Your task to perform on an android device: toggle location history Image 0: 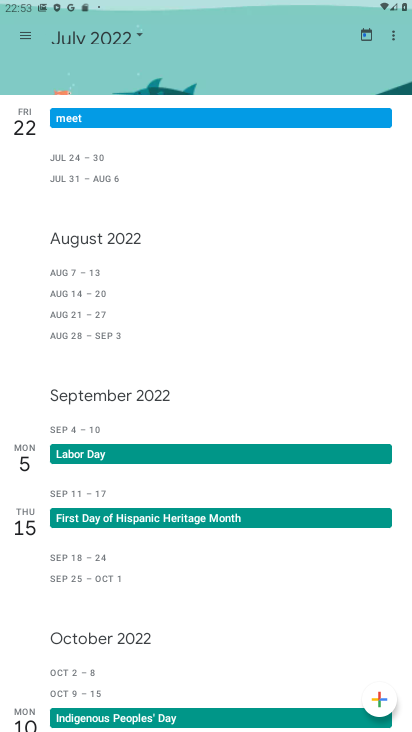
Step 0: press home button
Your task to perform on an android device: toggle location history Image 1: 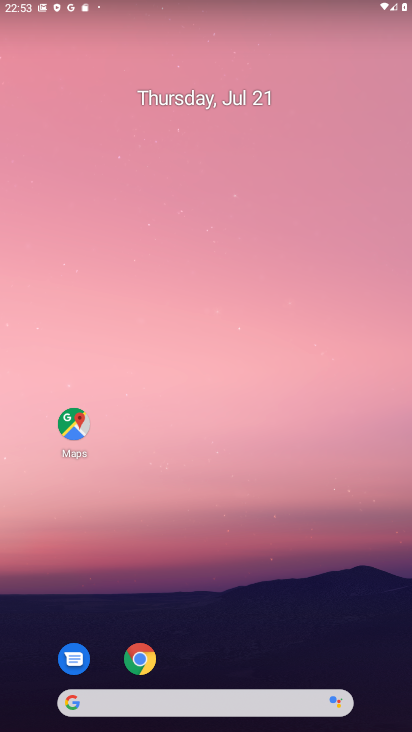
Step 1: drag from (197, 702) to (249, 258)
Your task to perform on an android device: toggle location history Image 2: 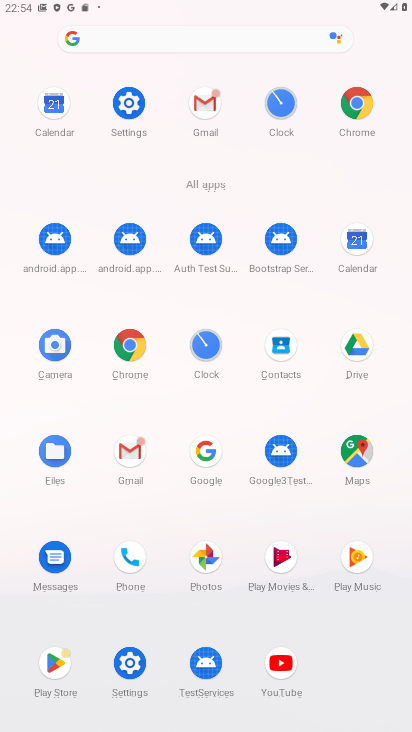
Step 2: click (130, 103)
Your task to perform on an android device: toggle location history Image 3: 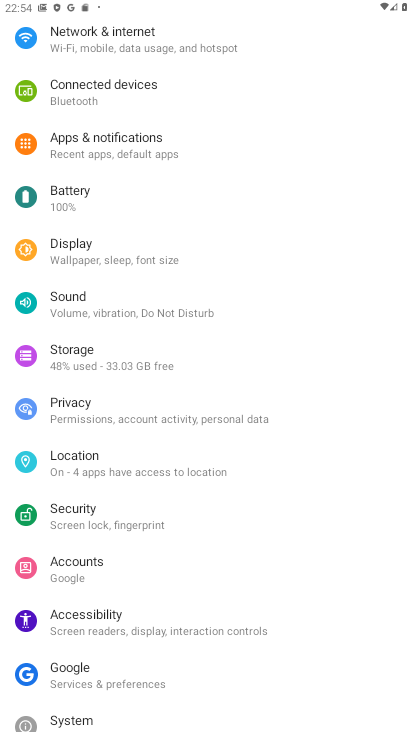
Step 3: click (86, 463)
Your task to perform on an android device: toggle location history Image 4: 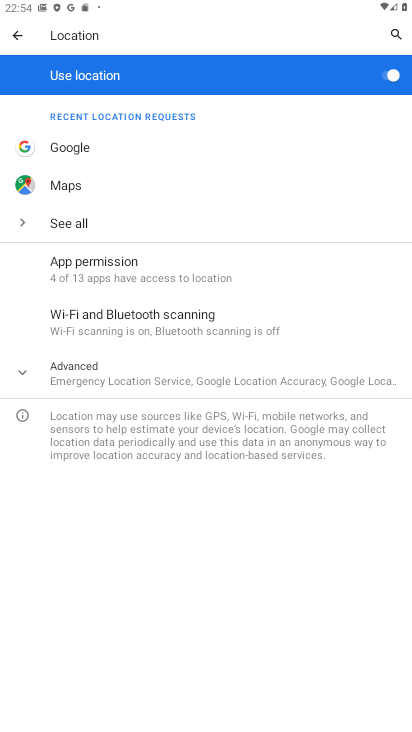
Step 4: click (129, 378)
Your task to perform on an android device: toggle location history Image 5: 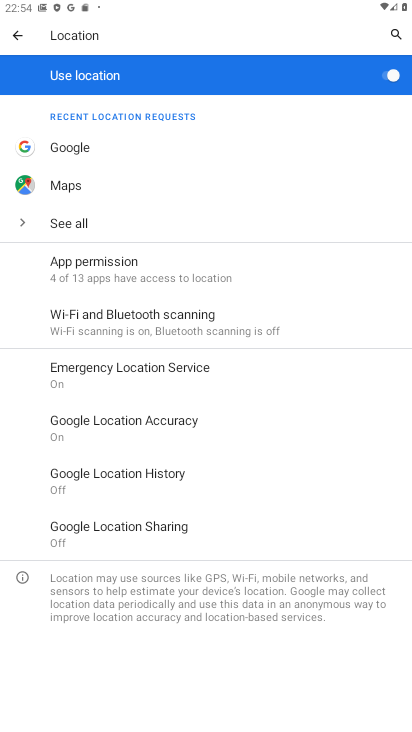
Step 5: click (102, 475)
Your task to perform on an android device: toggle location history Image 6: 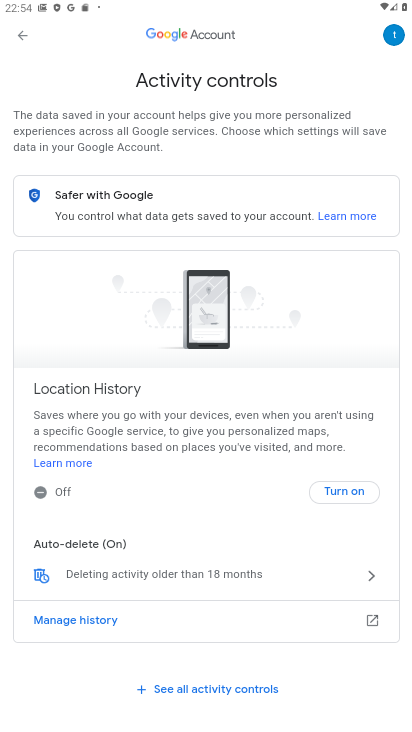
Step 6: click (340, 489)
Your task to perform on an android device: toggle location history Image 7: 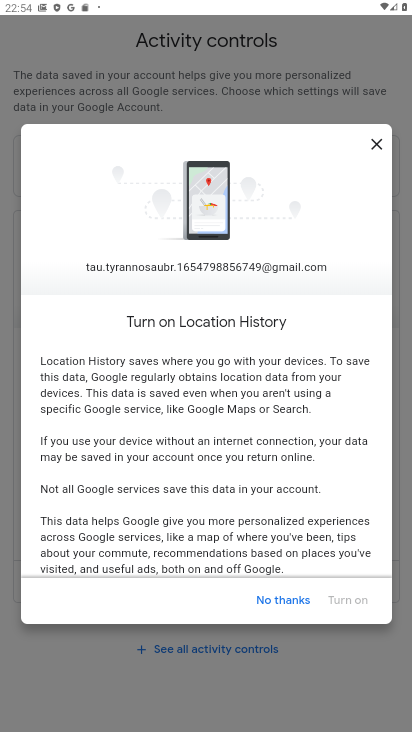
Step 7: drag from (310, 510) to (376, 351)
Your task to perform on an android device: toggle location history Image 8: 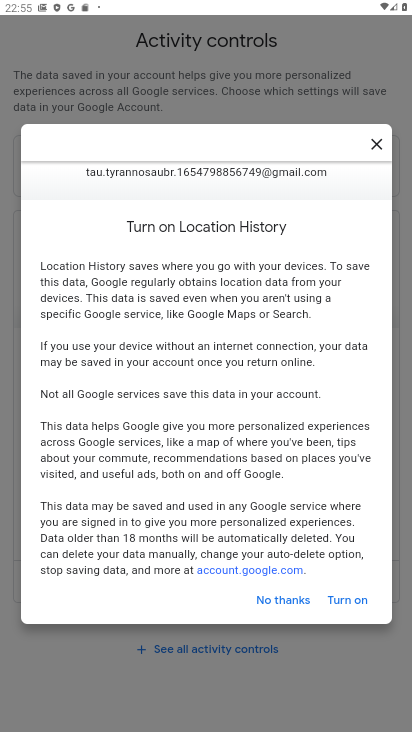
Step 8: click (344, 600)
Your task to perform on an android device: toggle location history Image 9: 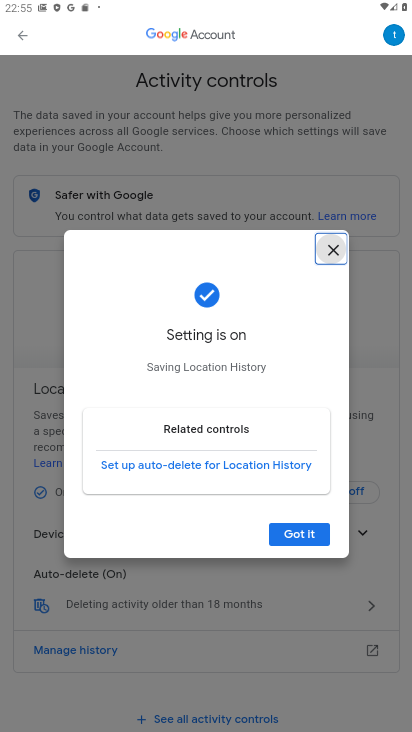
Step 9: click (311, 537)
Your task to perform on an android device: toggle location history Image 10: 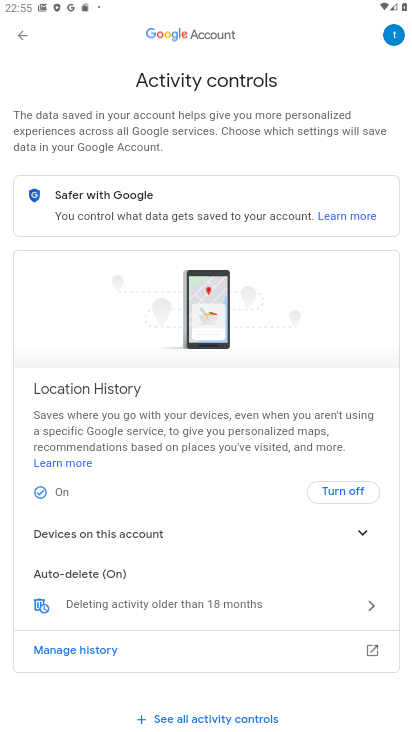
Step 10: task complete